Your task to perform on an android device: Open Google Image 0: 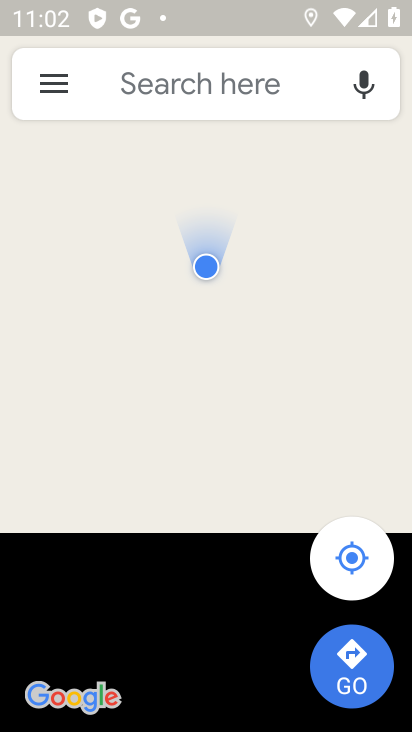
Step 0: click (387, 61)
Your task to perform on an android device: Open Google Image 1: 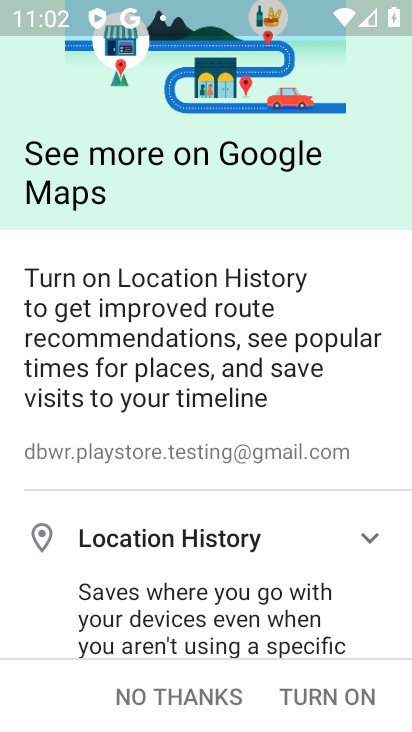
Step 1: task complete